Your task to perform on an android device: What's the weather? Image 0: 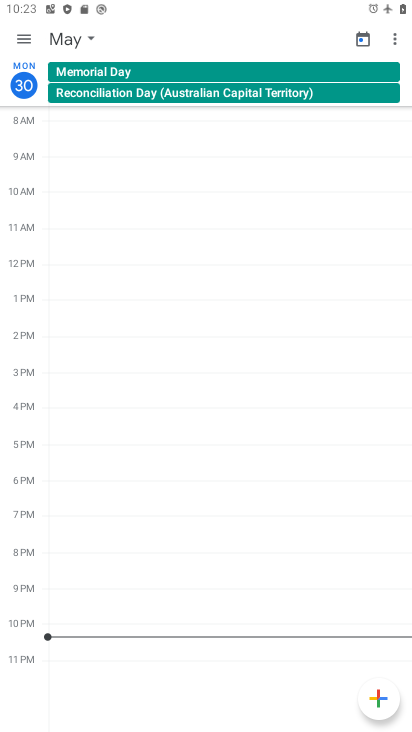
Step 0: press home button
Your task to perform on an android device: What's the weather? Image 1: 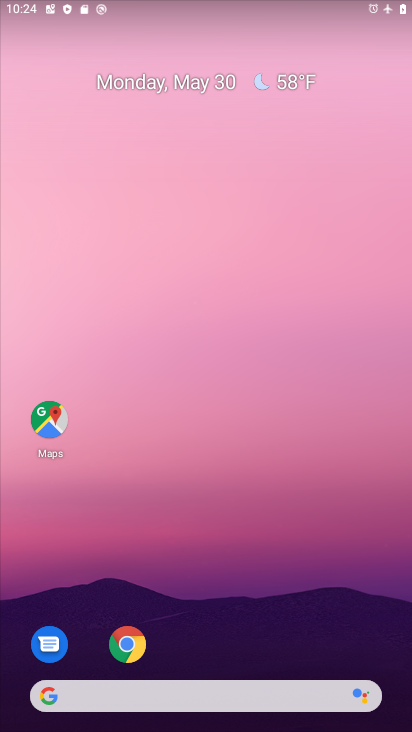
Step 1: click (294, 80)
Your task to perform on an android device: What's the weather? Image 2: 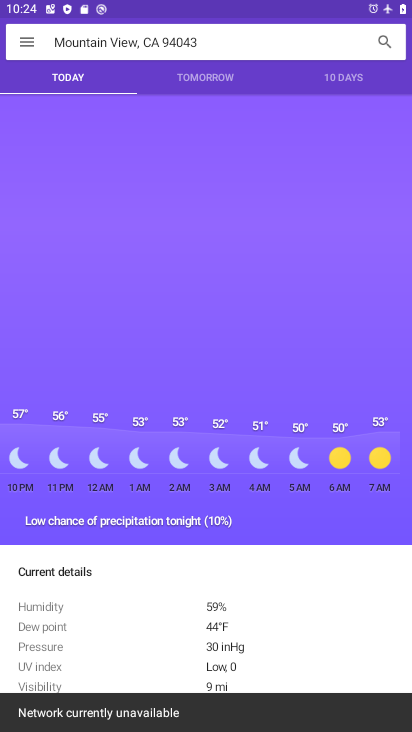
Step 2: task complete